Your task to perform on an android device: Show me recent news Image 0: 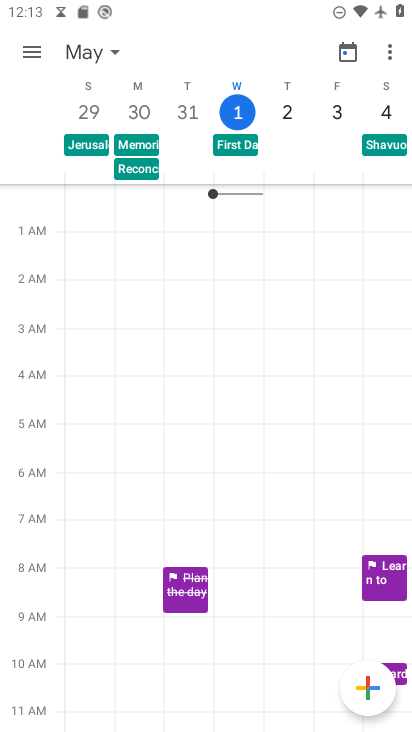
Step 0: press home button
Your task to perform on an android device: Show me recent news Image 1: 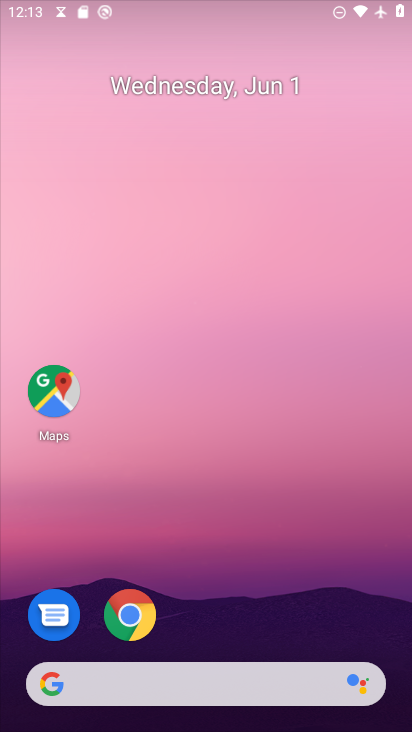
Step 1: drag from (193, 378) to (194, 26)
Your task to perform on an android device: Show me recent news Image 2: 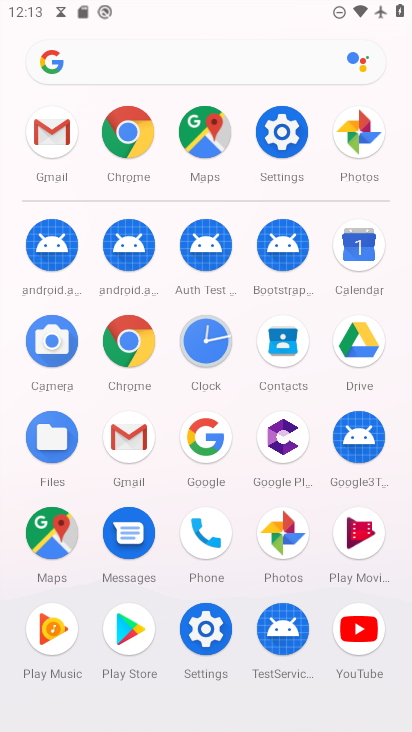
Step 2: click (124, 338)
Your task to perform on an android device: Show me recent news Image 3: 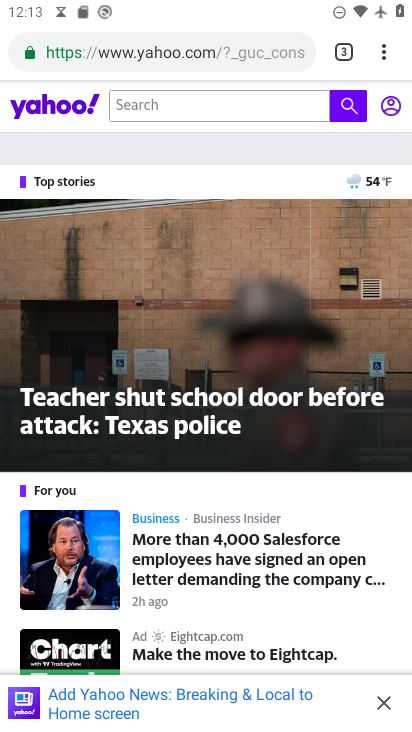
Step 3: click (201, 52)
Your task to perform on an android device: Show me recent news Image 4: 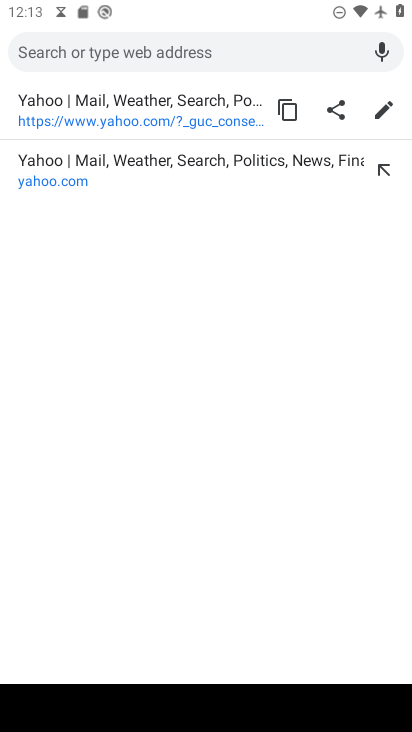
Step 4: type "recent news"
Your task to perform on an android device: Show me recent news Image 5: 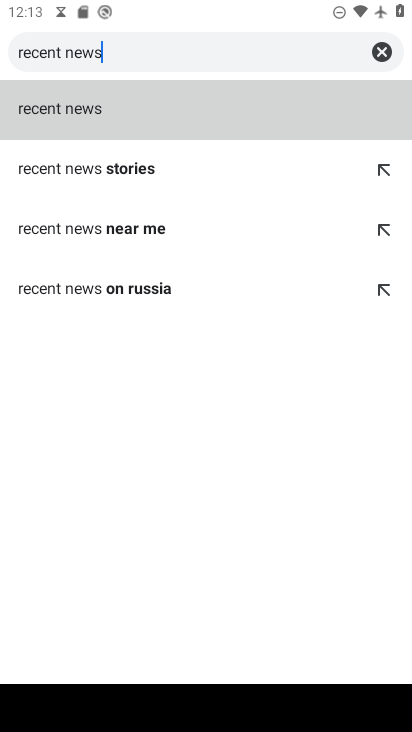
Step 5: click (189, 106)
Your task to perform on an android device: Show me recent news Image 6: 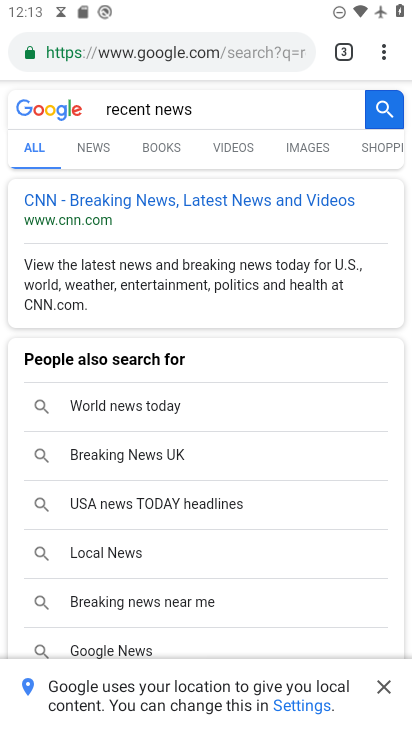
Step 6: task complete